Your task to perform on an android device: Open maps Image 0: 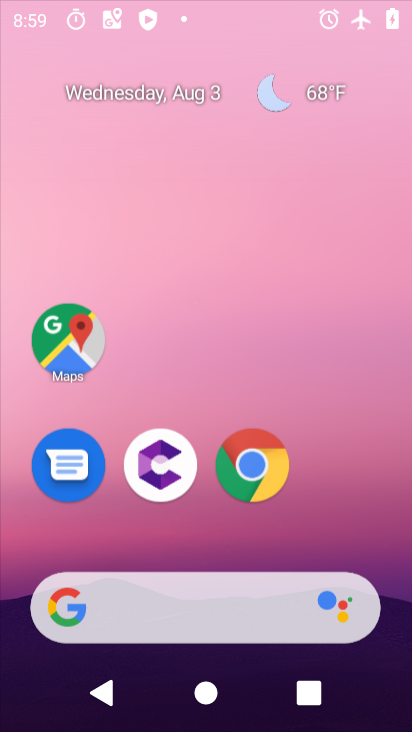
Step 0: press home button
Your task to perform on an android device: Open maps Image 1: 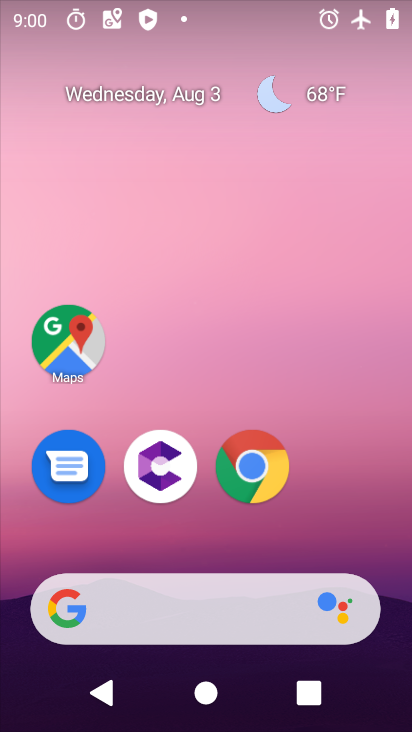
Step 1: drag from (367, 494) to (319, 66)
Your task to perform on an android device: Open maps Image 2: 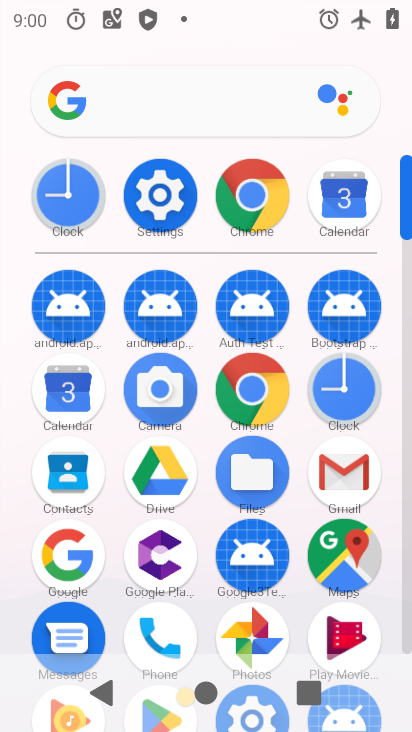
Step 2: click (361, 563)
Your task to perform on an android device: Open maps Image 3: 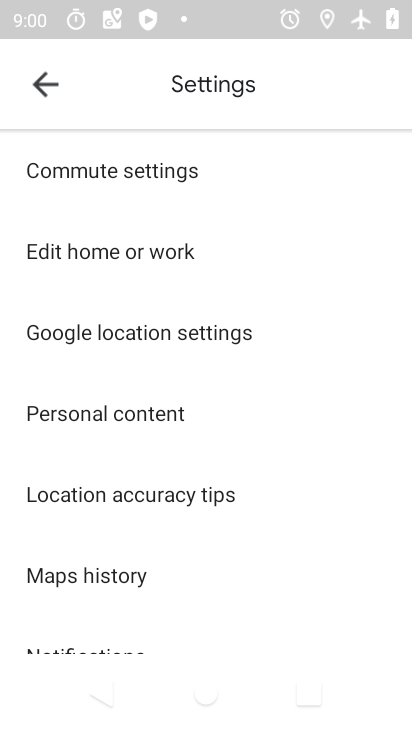
Step 3: click (39, 90)
Your task to perform on an android device: Open maps Image 4: 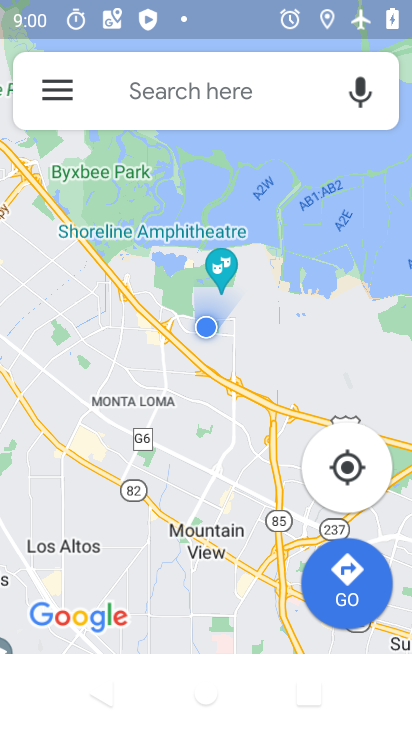
Step 4: task complete